Your task to perform on an android device: turn pop-ups off in chrome Image 0: 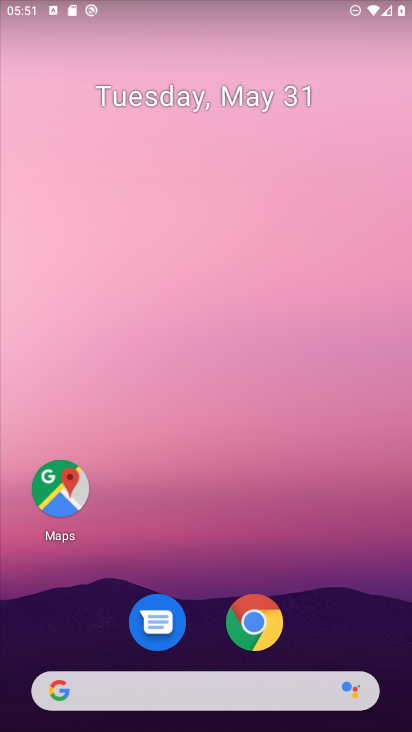
Step 0: drag from (329, 667) to (401, 59)
Your task to perform on an android device: turn pop-ups off in chrome Image 1: 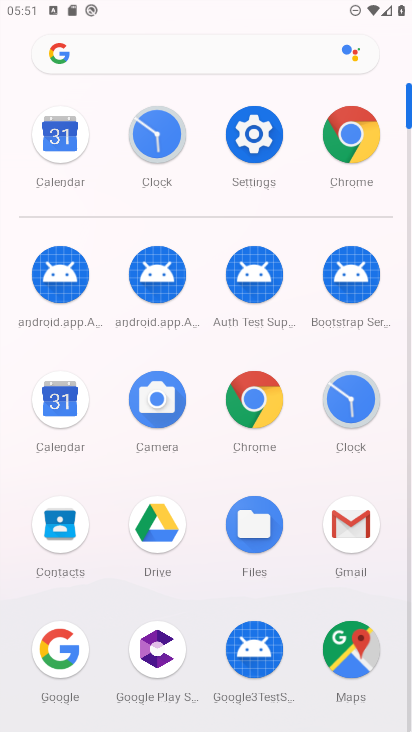
Step 1: click (265, 399)
Your task to perform on an android device: turn pop-ups off in chrome Image 2: 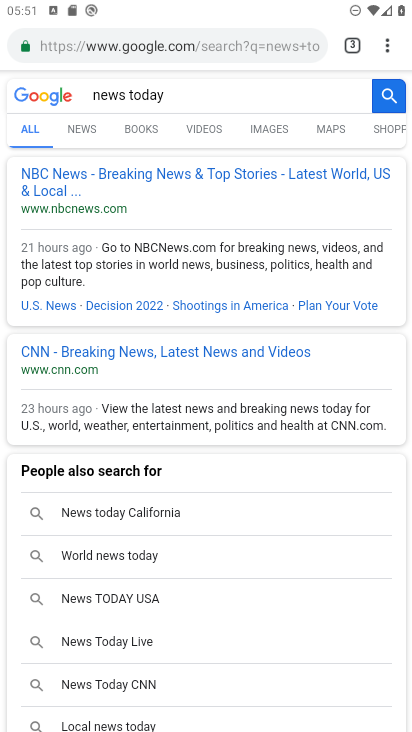
Step 2: drag from (384, 38) to (232, 503)
Your task to perform on an android device: turn pop-ups off in chrome Image 3: 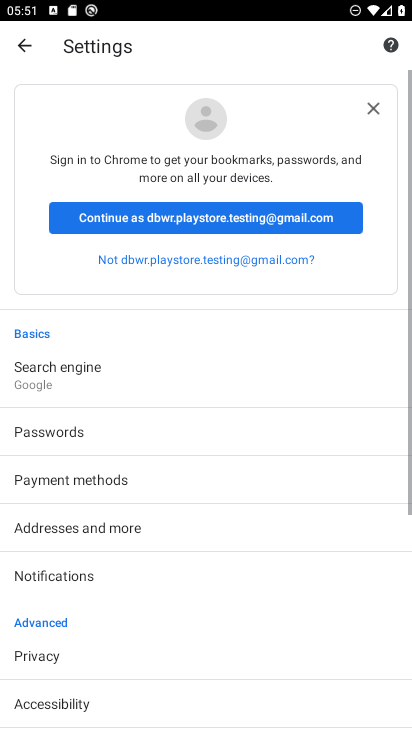
Step 3: drag from (214, 541) to (274, 142)
Your task to perform on an android device: turn pop-ups off in chrome Image 4: 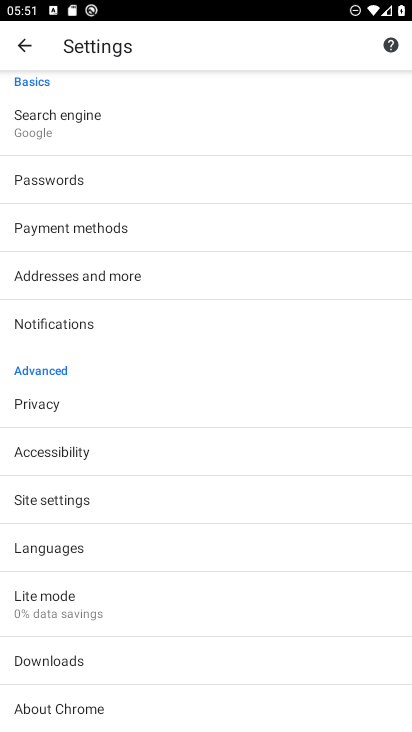
Step 4: click (93, 506)
Your task to perform on an android device: turn pop-ups off in chrome Image 5: 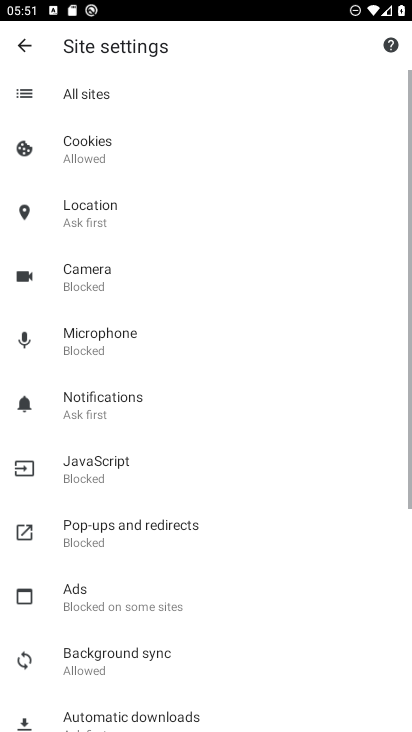
Step 5: drag from (230, 587) to (269, 163)
Your task to perform on an android device: turn pop-ups off in chrome Image 6: 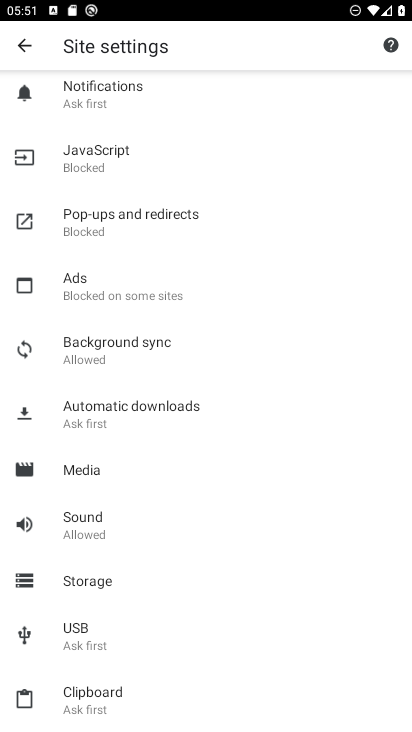
Step 6: click (87, 222)
Your task to perform on an android device: turn pop-ups off in chrome Image 7: 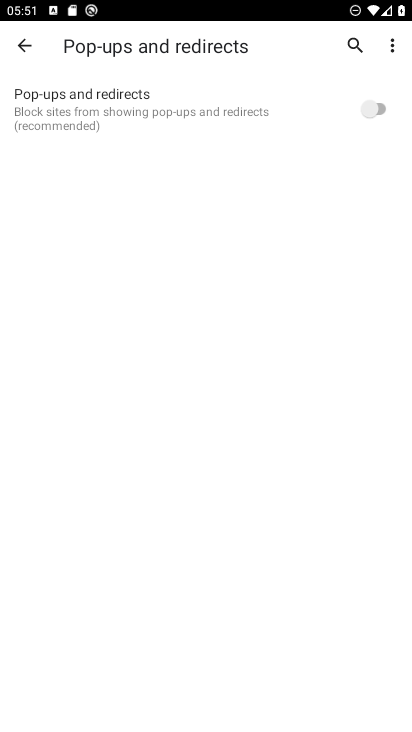
Step 7: task complete